Your task to perform on an android device: change notifications settings Image 0: 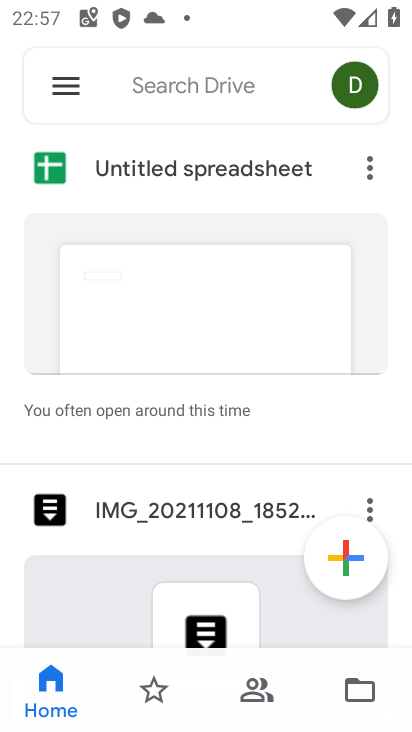
Step 0: press home button
Your task to perform on an android device: change notifications settings Image 1: 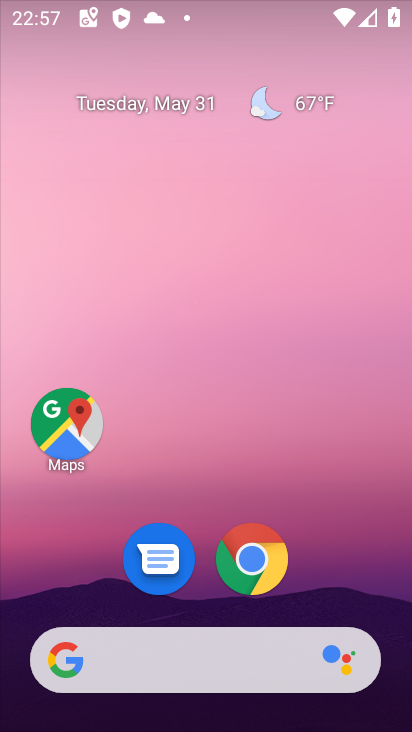
Step 1: drag from (320, 566) to (380, 12)
Your task to perform on an android device: change notifications settings Image 2: 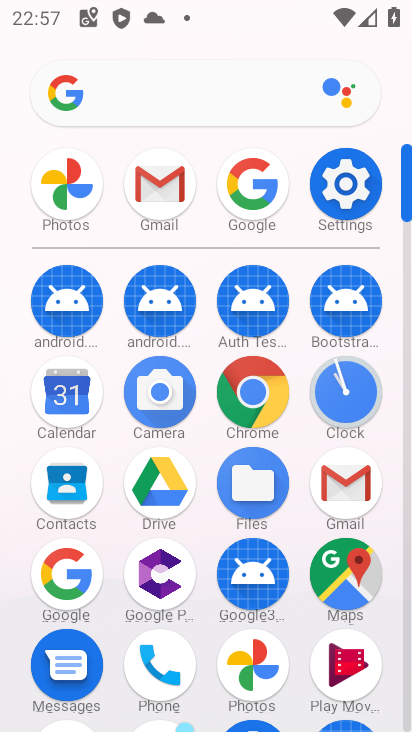
Step 2: click (348, 184)
Your task to perform on an android device: change notifications settings Image 3: 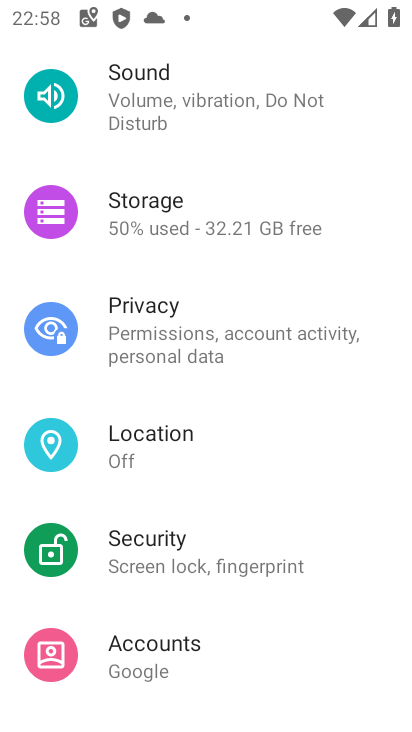
Step 3: drag from (245, 116) to (250, 438)
Your task to perform on an android device: change notifications settings Image 4: 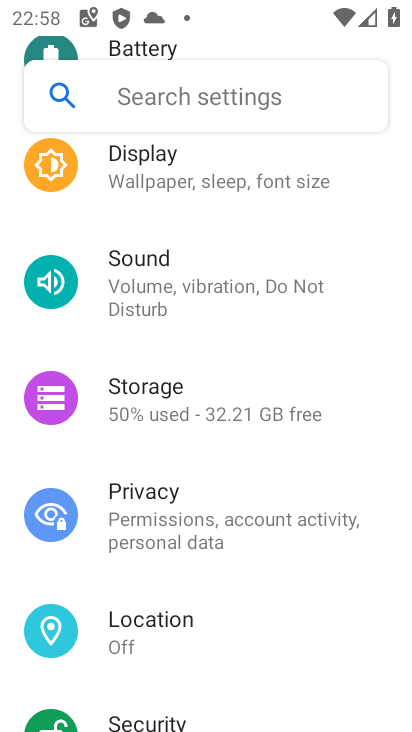
Step 4: drag from (172, 164) to (191, 613)
Your task to perform on an android device: change notifications settings Image 5: 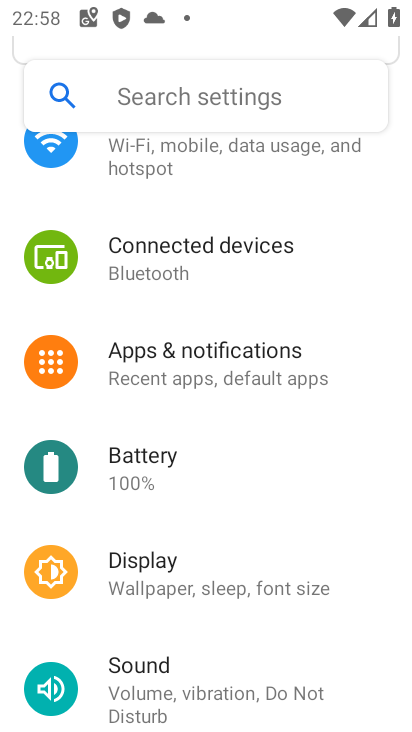
Step 5: click (194, 379)
Your task to perform on an android device: change notifications settings Image 6: 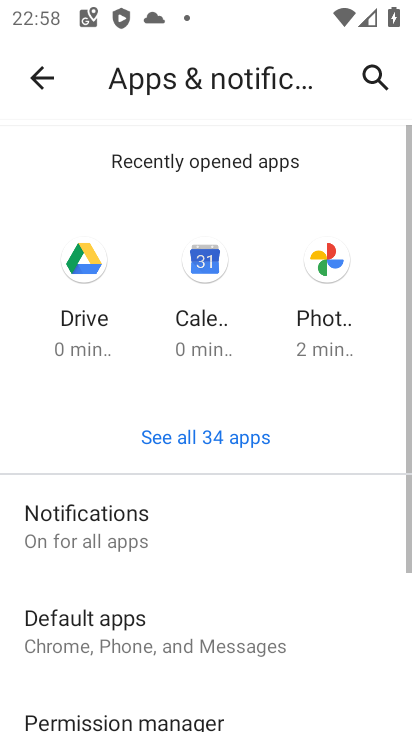
Step 6: click (151, 536)
Your task to perform on an android device: change notifications settings Image 7: 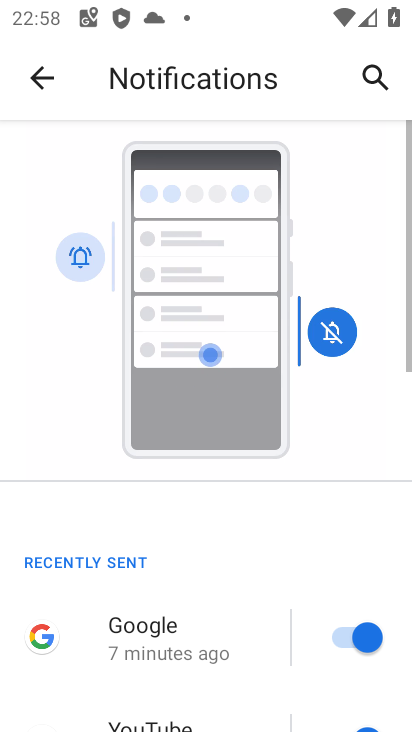
Step 7: drag from (260, 567) to (288, 12)
Your task to perform on an android device: change notifications settings Image 8: 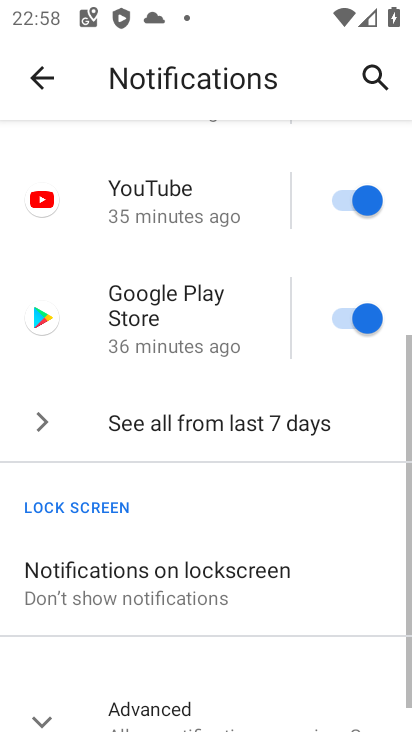
Step 8: drag from (268, 683) to (262, 221)
Your task to perform on an android device: change notifications settings Image 9: 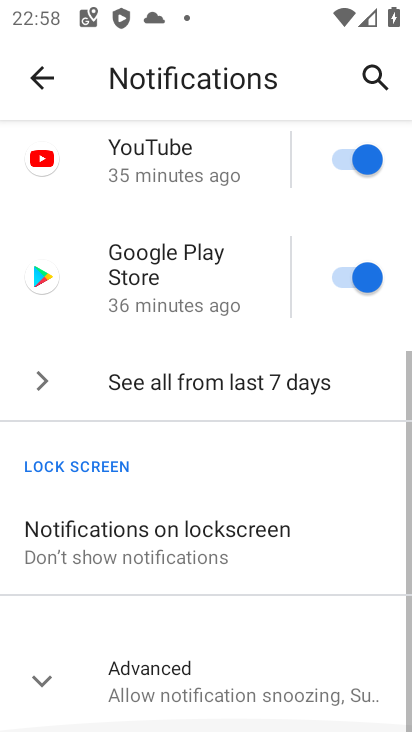
Step 9: click (123, 689)
Your task to perform on an android device: change notifications settings Image 10: 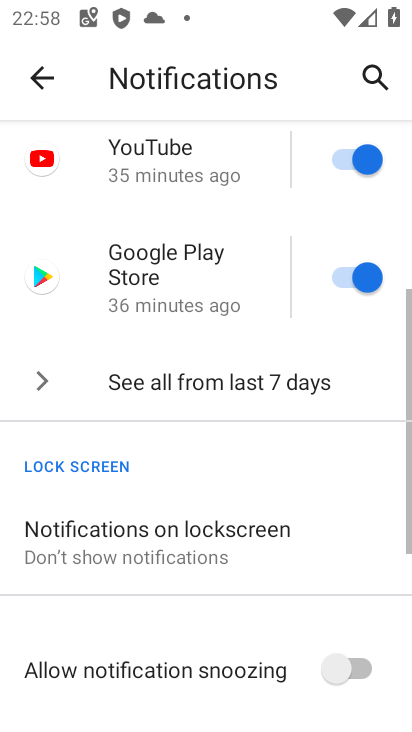
Step 10: drag from (242, 611) to (262, 220)
Your task to perform on an android device: change notifications settings Image 11: 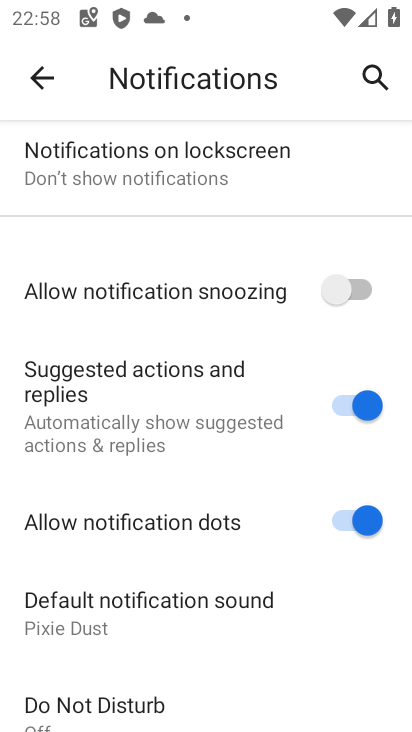
Step 11: click (343, 305)
Your task to perform on an android device: change notifications settings Image 12: 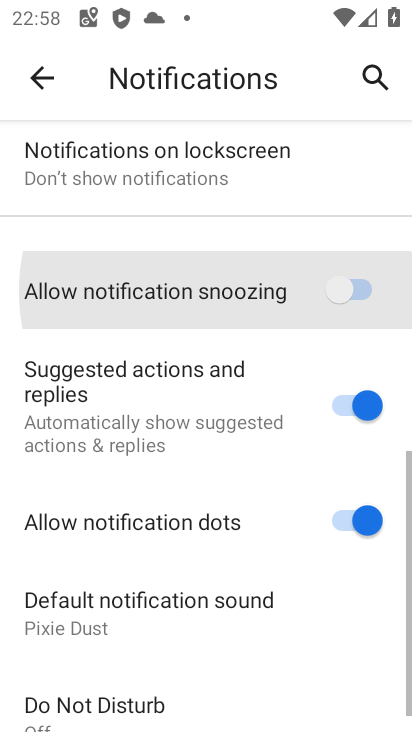
Step 12: click (373, 395)
Your task to perform on an android device: change notifications settings Image 13: 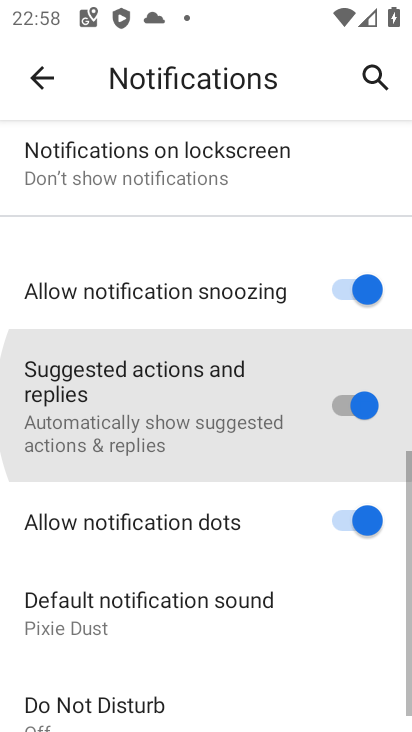
Step 13: click (352, 534)
Your task to perform on an android device: change notifications settings Image 14: 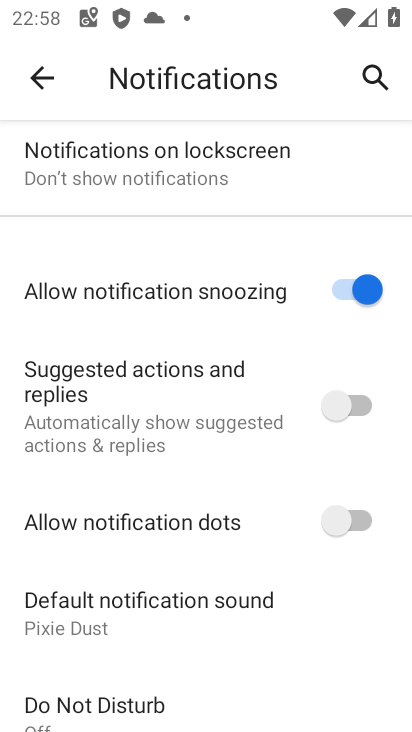
Step 14: task complete